Your task to perform on an android device: Open accessibility settings Image 0: 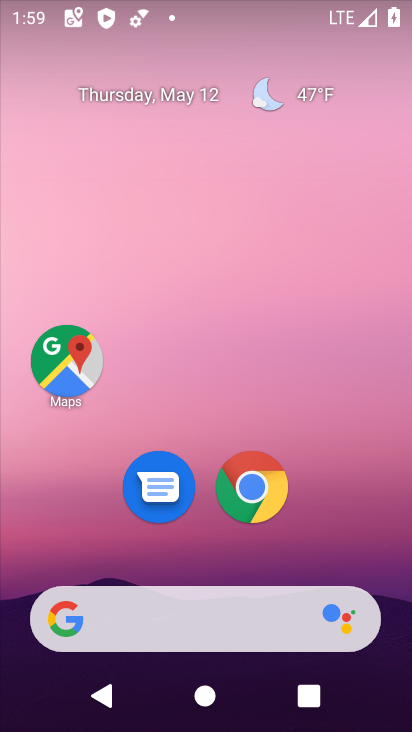
Step 0: drag from (322, 523) to (300, 112)
Your task to perform on an android device: Open accessibility settings Image 1: 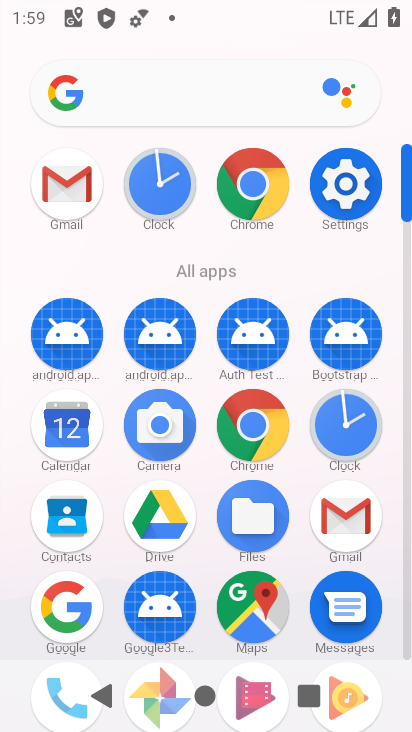
Step 1: click (341, 188)
Your task to perform on an android device: Open accessibility settings Image 2: 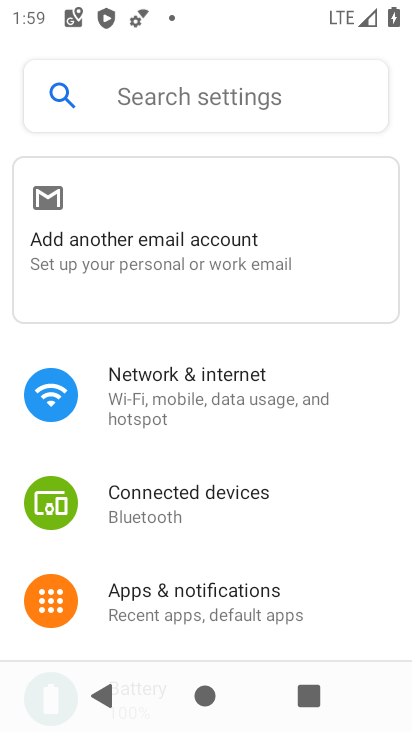
Step 2: drag from (279, 582) to (306, 147)
Your task to perform on an android device: Open accessibility settings Image 3: 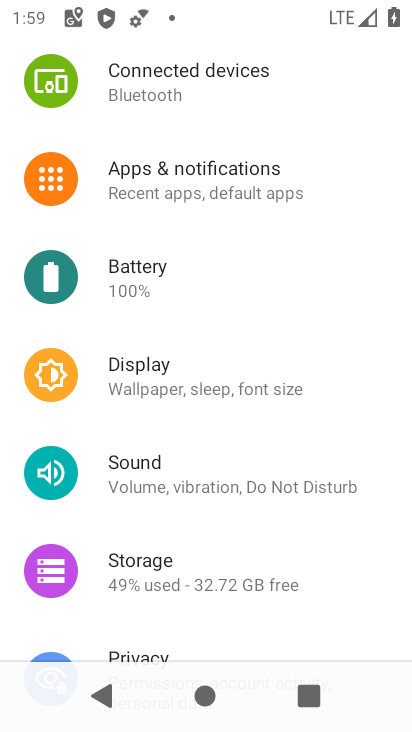
Step 3: drag from (234, 509) to (211, 162)
Your task to perform on an android device: Open accessibility settings Image 4: 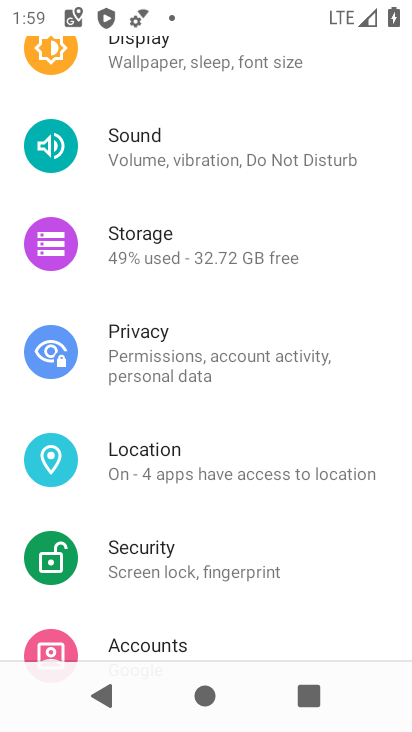
Step 4: drag from (248, 604) to (274, 209)
Your task to perform on an android device: Open accessibility settings Image 5: 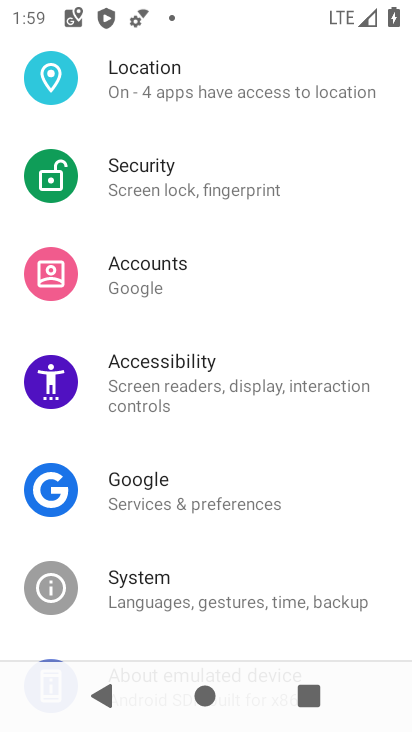
Step 5: click (238, 374)
Your task to perform on an android device: Open accessibility settings Image 6: 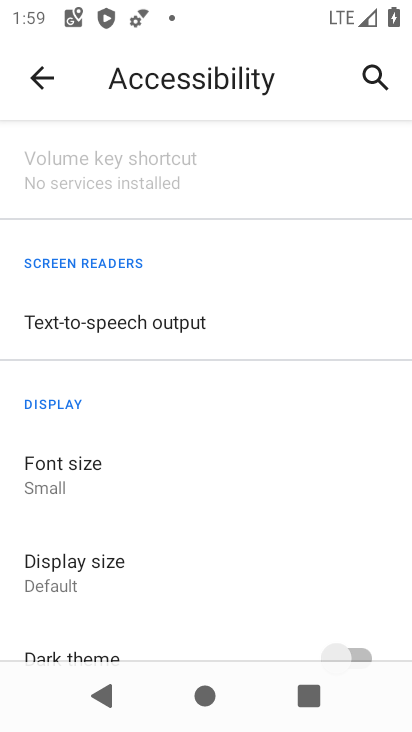
Step 6: task complete